Your task to perform on an android device: turn smart compose on in the gmail app Image 0: 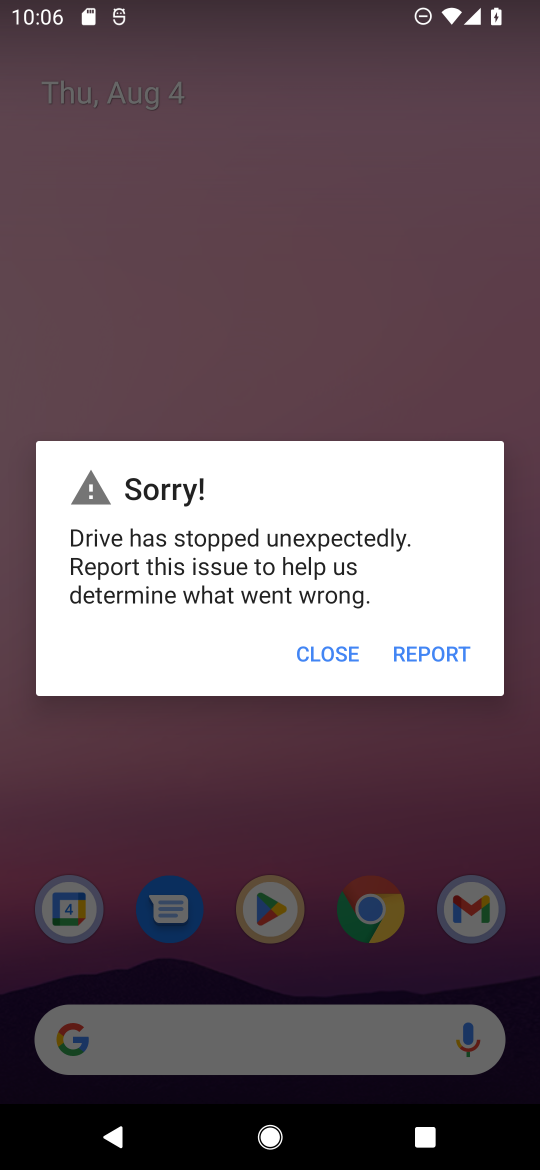
Step 0: press home button
Your task to perform on an android device: turn smart compose on in the gmail app Image 1: 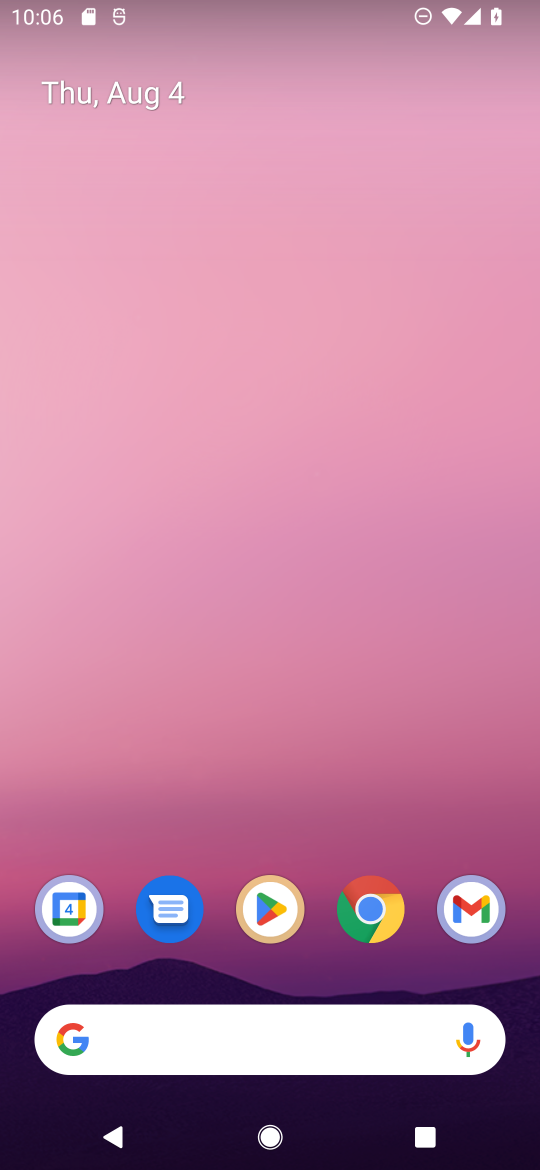
Step 1: click (473, 924)
Your task to perform on an android device: turn smart compose on in the gmail app Image 2: 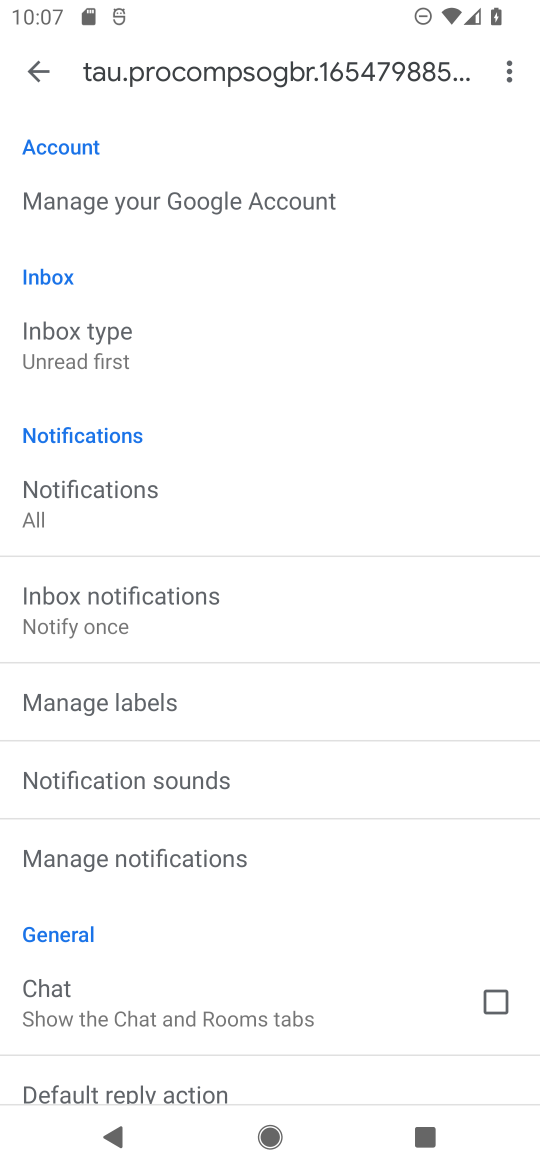
Step 2: task complete